Your task to perform on an android device: clear all cookies in the chrome app Image 0: 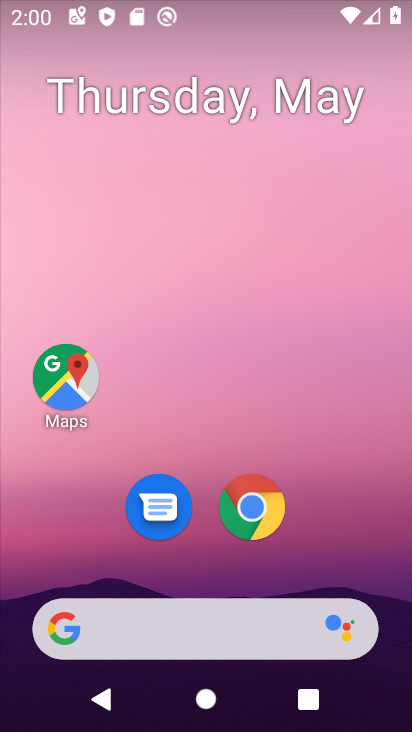
Step 0: drag from (319, 614) to (409, 585)
Your task to perform on an android device: clear all cookies in the chrome app Image 1: 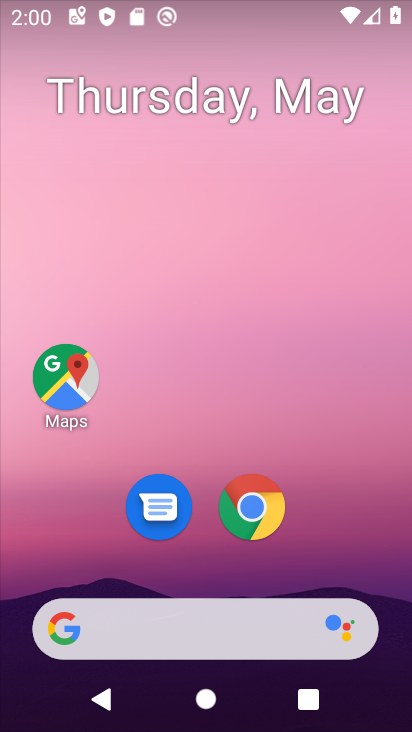
Step 1: click (257, 384)
Your task to perform on an android device: clear all cookies in the chrome app Image 2: 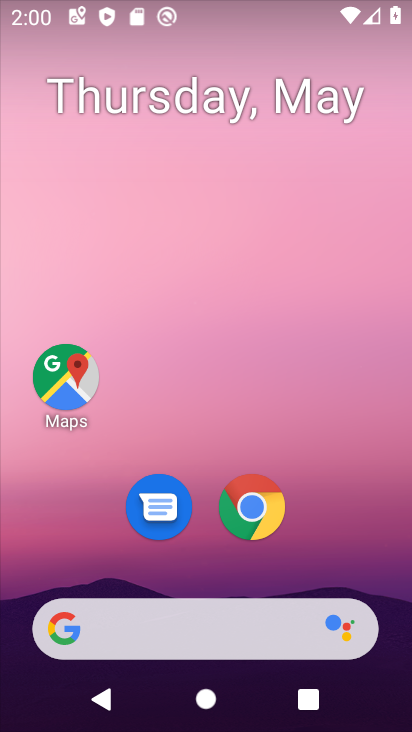
Step 2: drag from (311, 637) to (293, 108)
Your task to perform on an android device: clear all cookies in the chrome app Image 3: 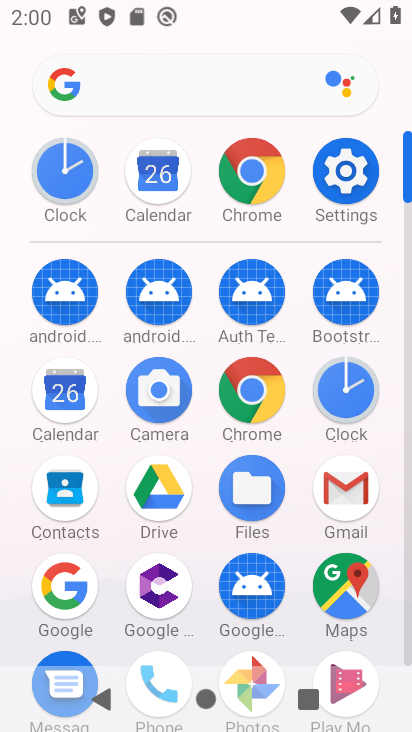
Step 3: click (266, 374)
Your task to perform on an android device: clear all cookies in the chrome app Image 4: 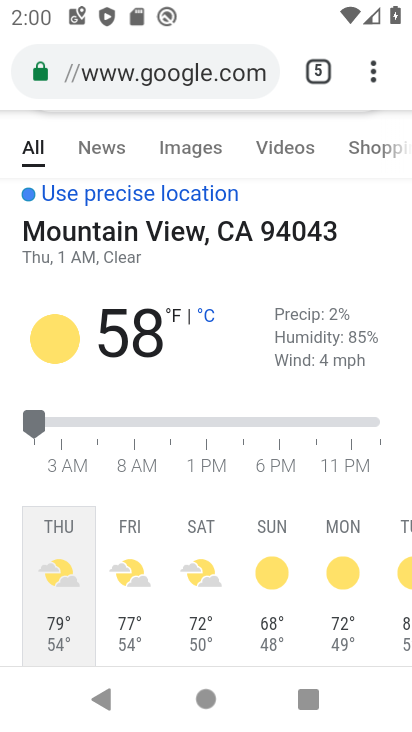
Step 4: click (372, 67)
Your task to perform on an android device: clear all cookies in the chrome app Image 5: 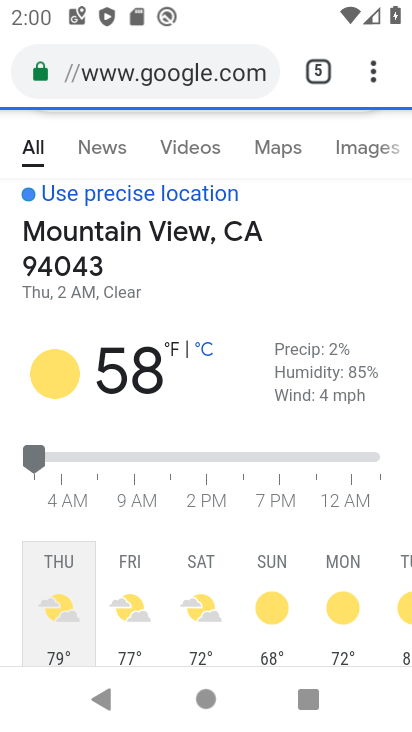
Step 5: drag from (372, 54) to (171, 501)
Your task to perform on an android device: clear all cookies in the chrome app Image 6: 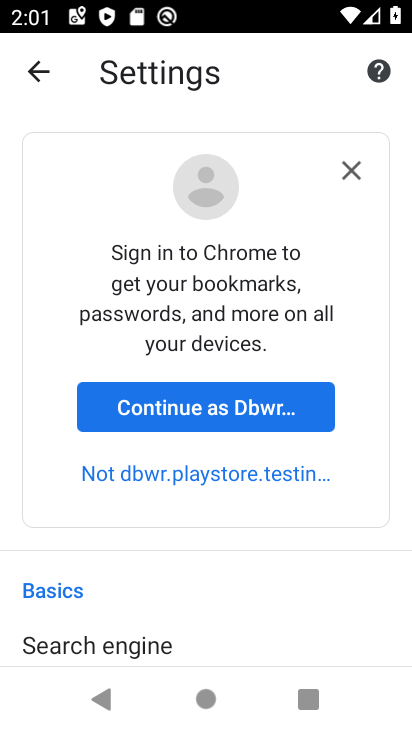
Step 6: drag from (149, 598) to (214, 35)
Your task to perform on an android device: clear all cookies in the chrome app Image 7: 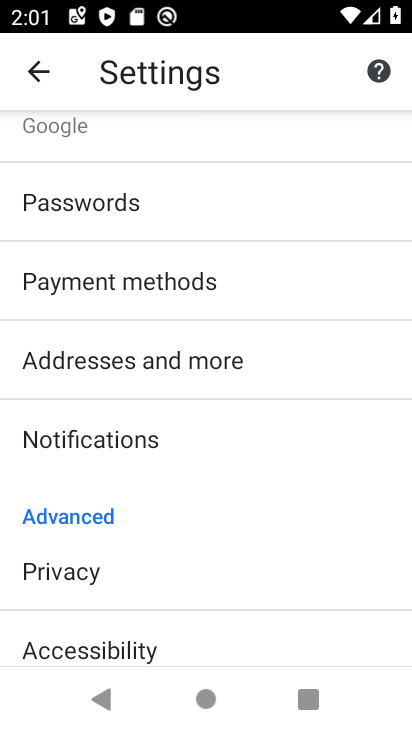
Step 7: drag from (245, 632) to (235, 178)
Your task to perform on an android device: clear all cookies in the chrome app Image 8: 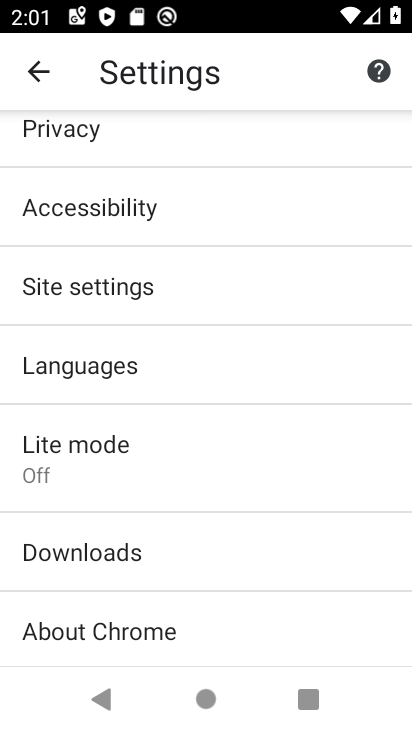
Step 8: drag from (225, 198) to (199, 605)
Your task to perform on an android device: clear all cookies in the chrome app Image 9: 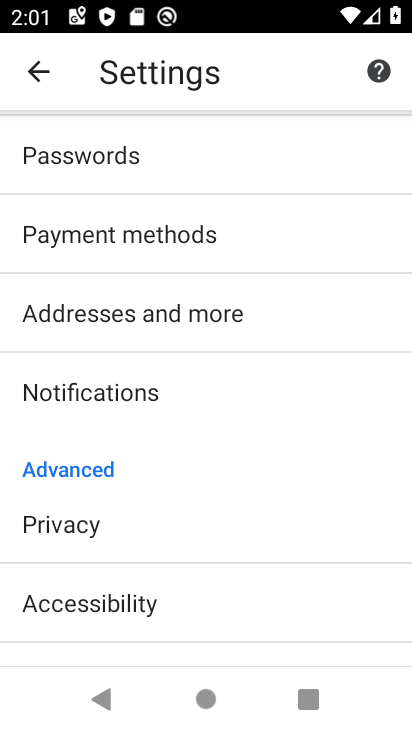
Step 9: click (119, 535)
Your task to perform on an android device: clear all cookies in the chrome app Image 10: 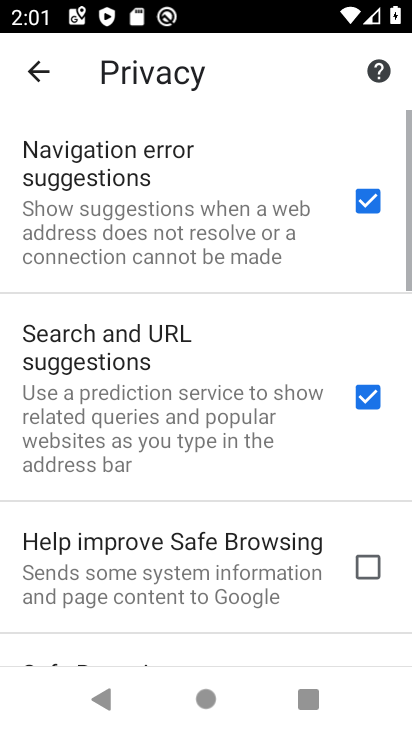
Step 10: drag from (205, 637) to (175, 73)
Your task to perform on an android device: clear all cookies in the chrome app Image 11: 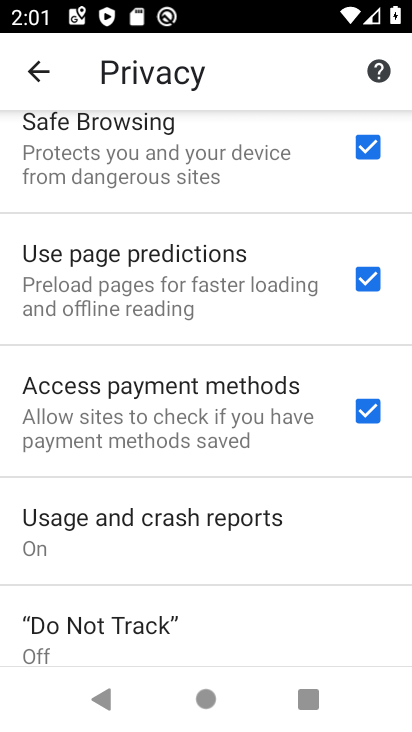
Step 11: drag from (229, 576) to (261, 92)
Your task to perform on an android device: clear all cookies in the chrome app Image 12: 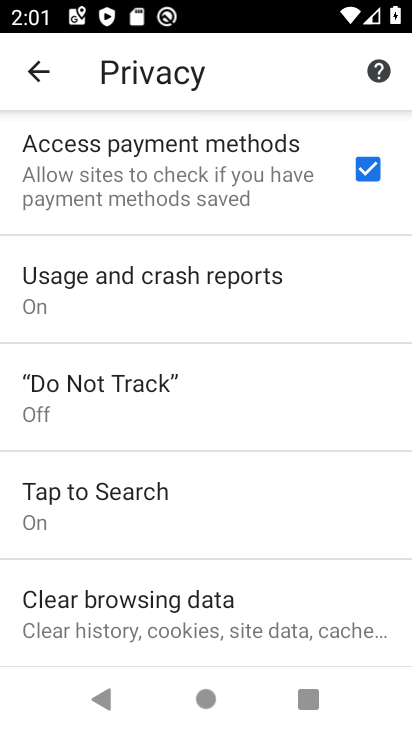
Step 12: click (219, 625)
Your task to perform on an android device: clear all cookies in the chrome app Image 13: 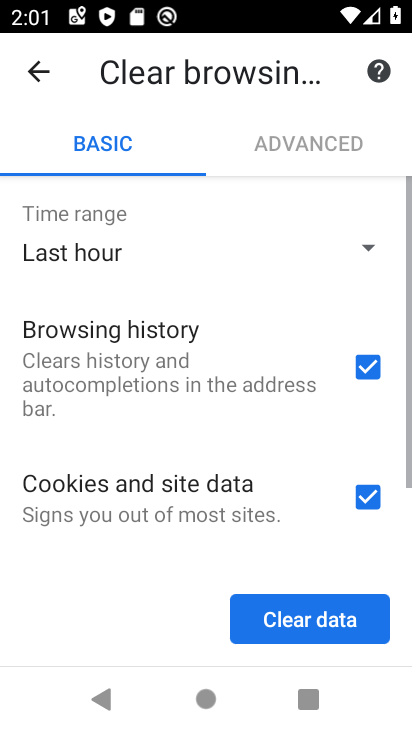
Step 13: click (327, 604)
Your task to perform on an android device: clear all cookies in the chrome app Image 14: 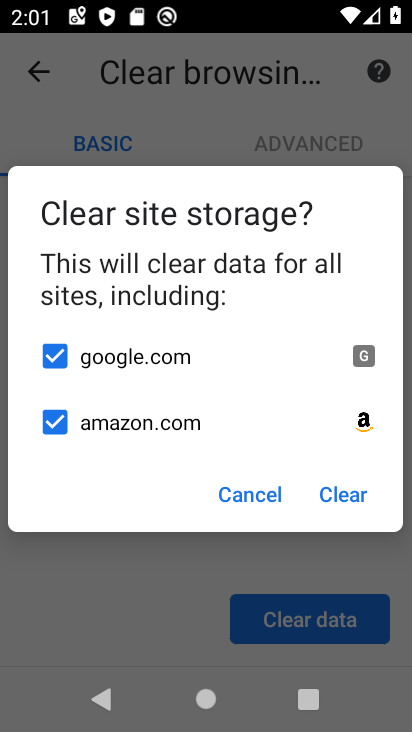
Step 14: click (343, 507)
Your task to perform on an android device: clear all cookies in the chrome app Image 15: 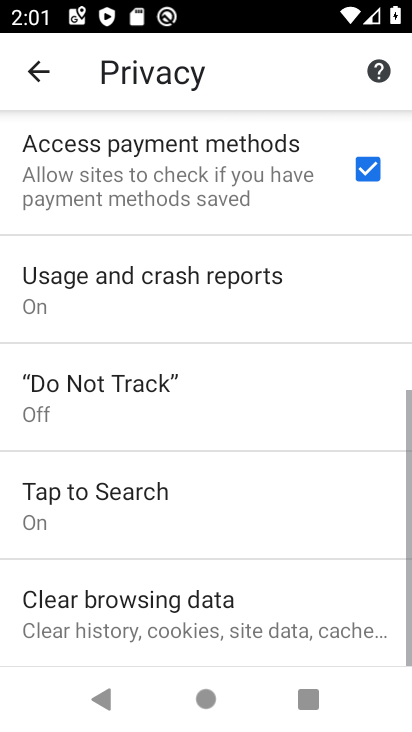
Step 15: task complete